Your task to perform on an android device: Open calendar and show me the third week of next month Image 0: 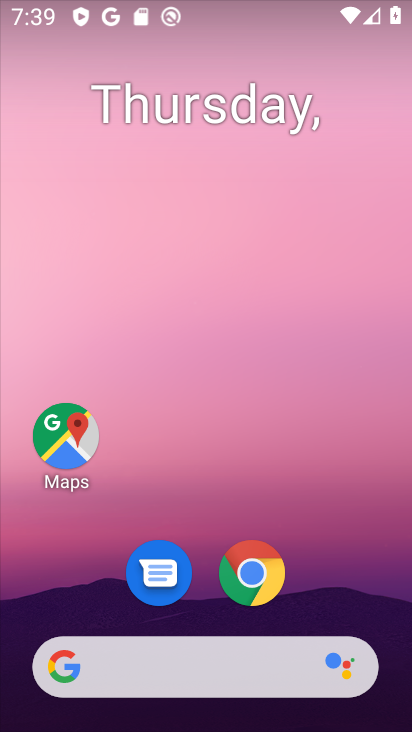
Step 0: drag from (368, 536) to (358, 191)
Your task to perform on an android device: Open calendar and show me the third week of next month Image 1: 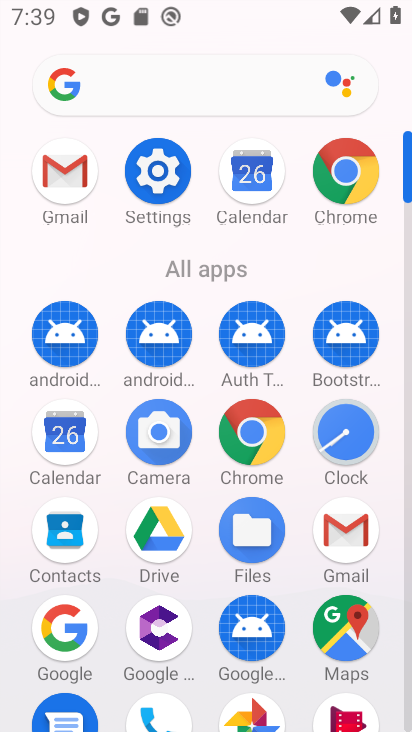
Step 1: click (74, 429)
Your task to perform on an android device: Open calendar and show me the third week of next month Image 2: 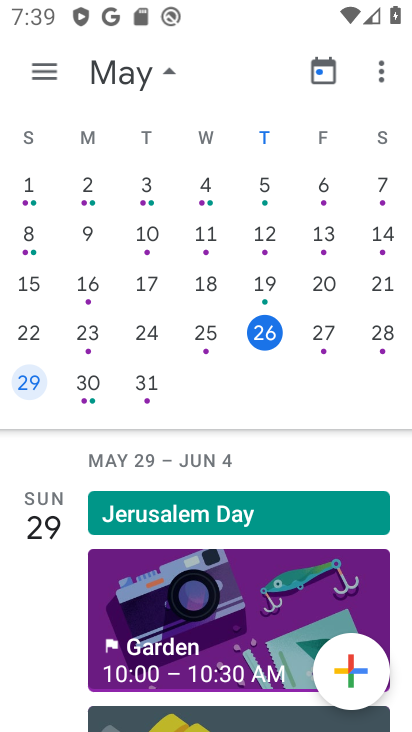
Step 2: drag from (372, 263) to (0, 196)
Your task to perform on an android device: Open calendar and show me the third week of next month Image 3: 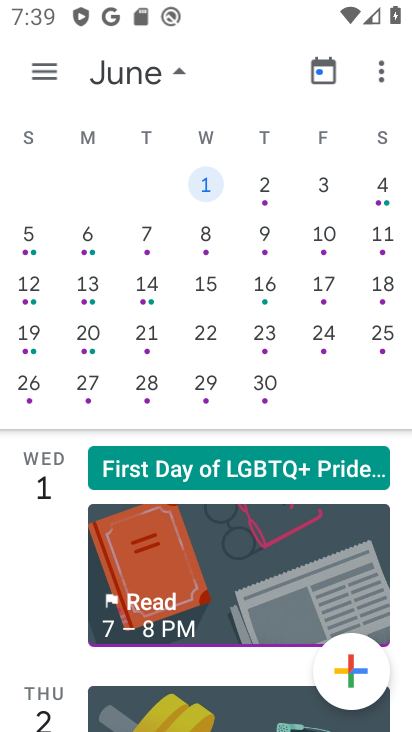
Step 3: click (24, 285)
Your task to perform on an android device: Open calendar and show me the third week of next month Image 4: 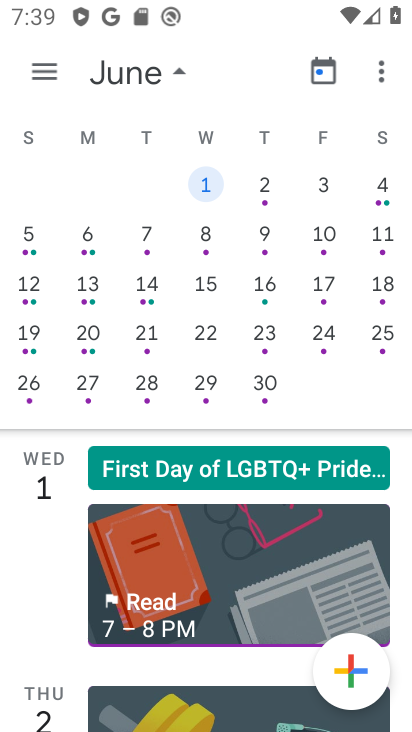
Step 4: click (30, 286)
Your task to perform on an android device: Open calendar and show me the third week of next month Image 5: 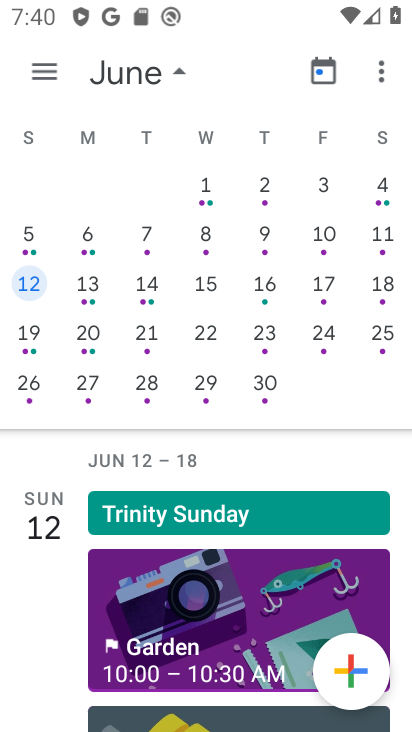
Step 5: task complete